Your task to perform on an android device: manage bookmarks in the chrome app Image 0: 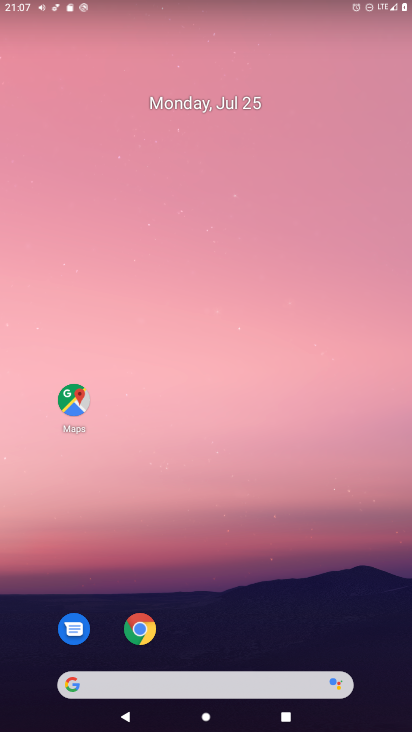
Step 0: click (139, 630)
Your task to perform on an android device: manage bookmarks in the chrome app Image 1: 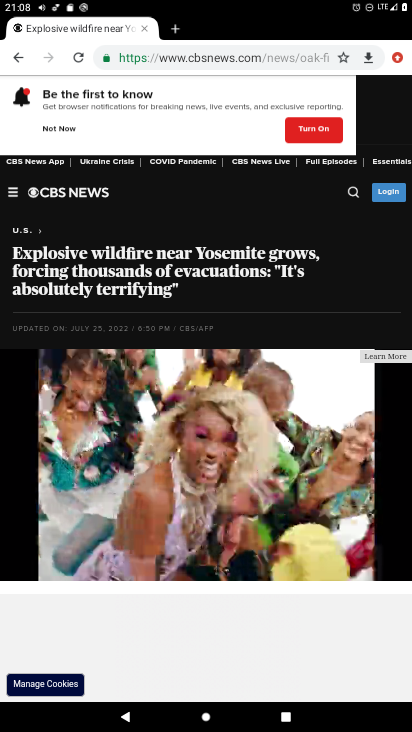
Step 1: click (396, 60)
Your task to perform on an android device: manage bookmarks in the chrome app Image 2: 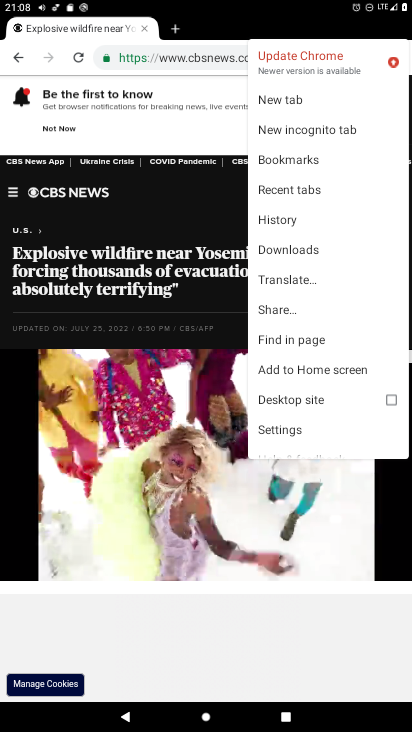
Step 2: click (295, 160)
Your task to perform on an android device: manage bookmarks in the chrome app Image 3: 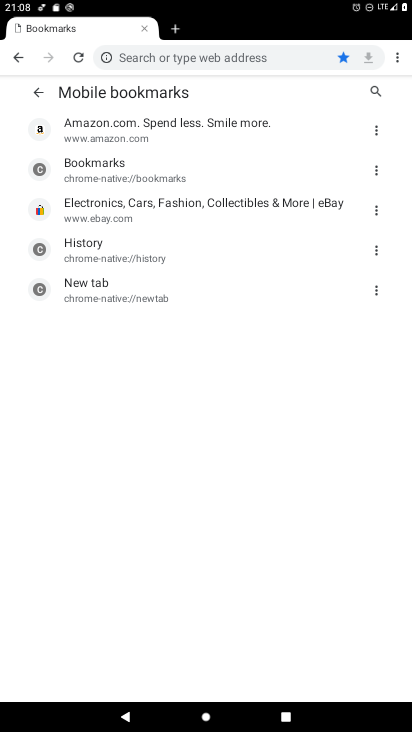
Step 3: click (375, 169)
Your task to perform on an android device: manage bookmarks in the chrome app Image 4: 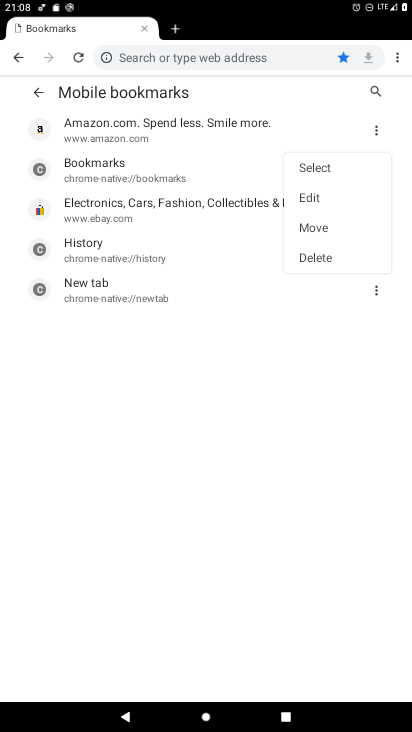
Step 4: click (304, 197)
Your task to perform on an android device: manage bookmarks in the chrome app Image 5: 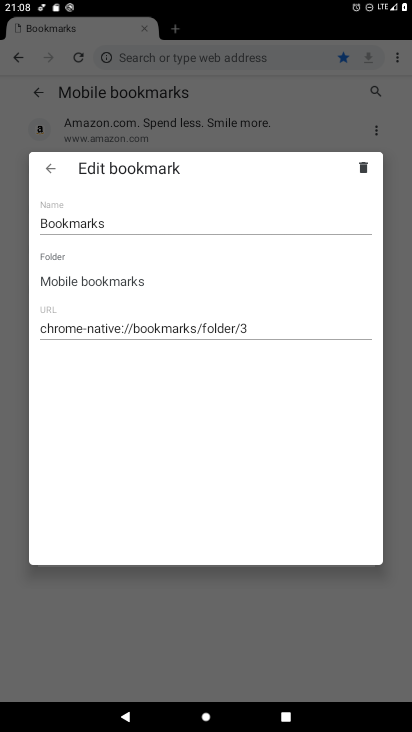
Step 5: click (362, 167)
Your task to perform on an android device: manage bookmarks in the chrome app Image 6: 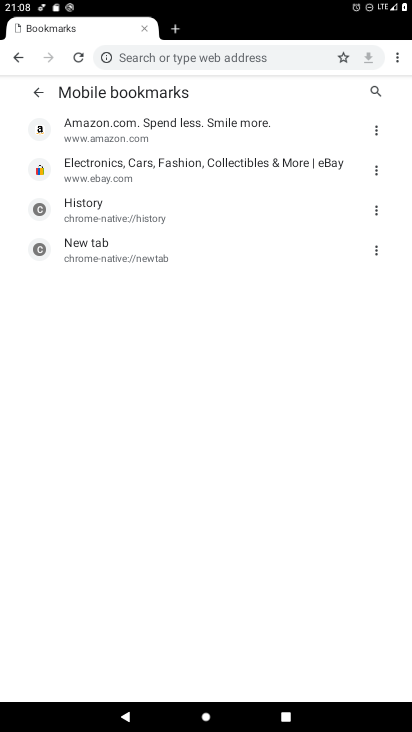
Step 6: task complete